Your task to perform on an android device: Show me recent news Image 0: 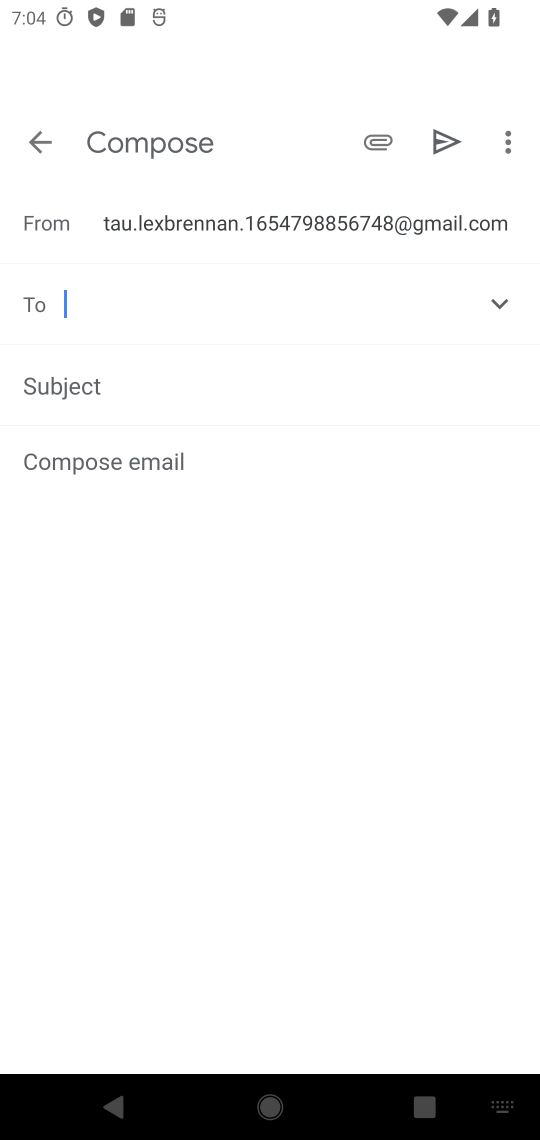
Step 0: press back button
Your task to perform on an android device: Show me recent news Image 1: 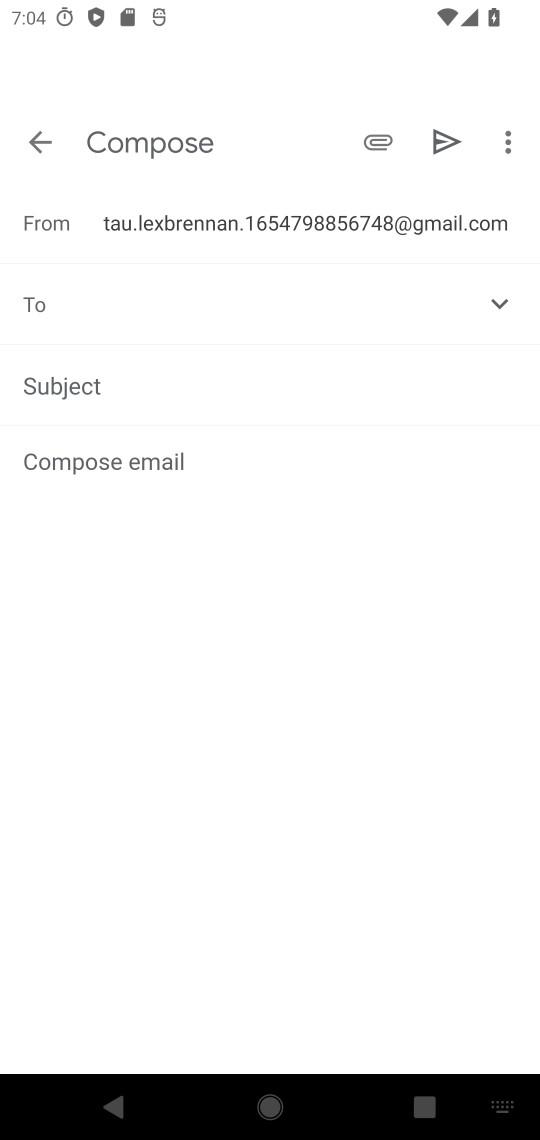
Step 1: press back button
Your task to perform on an android device: Show me recent news Image 2: 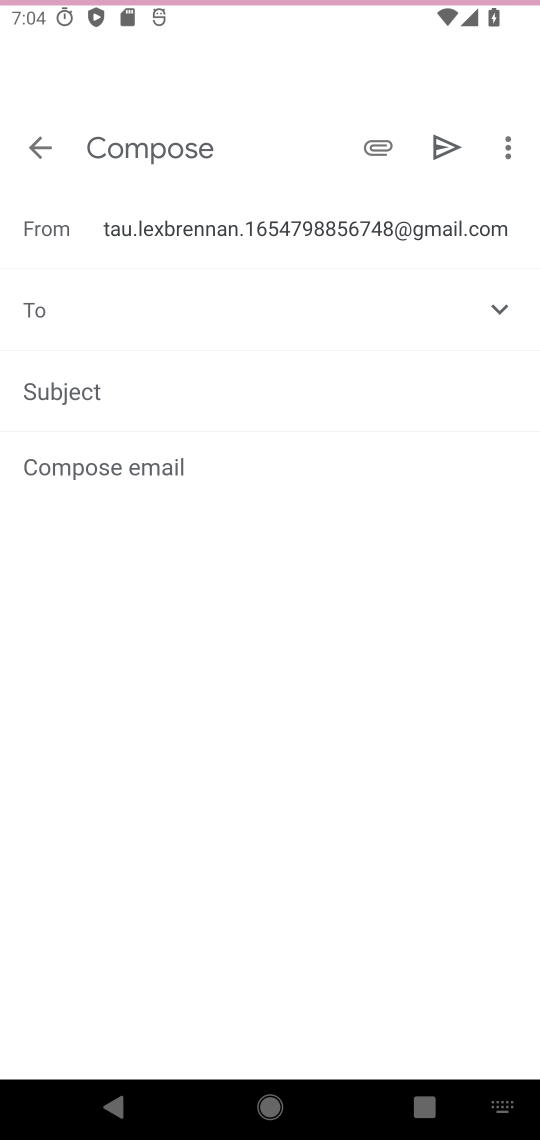
Step 2: press back button
Your task to perform on an android device: Show me recent news Image 3: 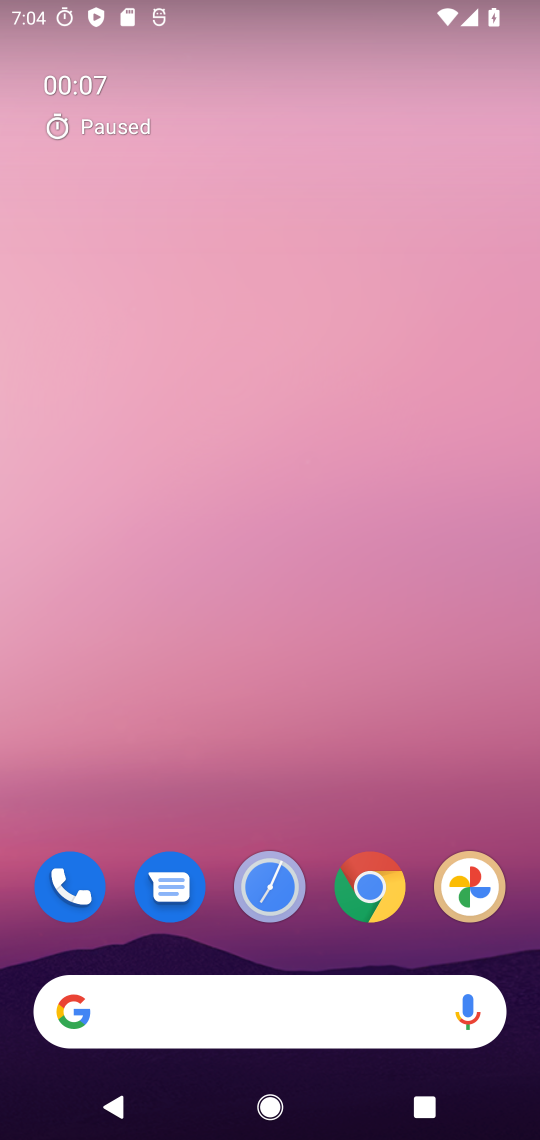
Step 3: drag from (288, 543) to (273, 244)
Your task to perform on an android device: Show me recent news Image 4: 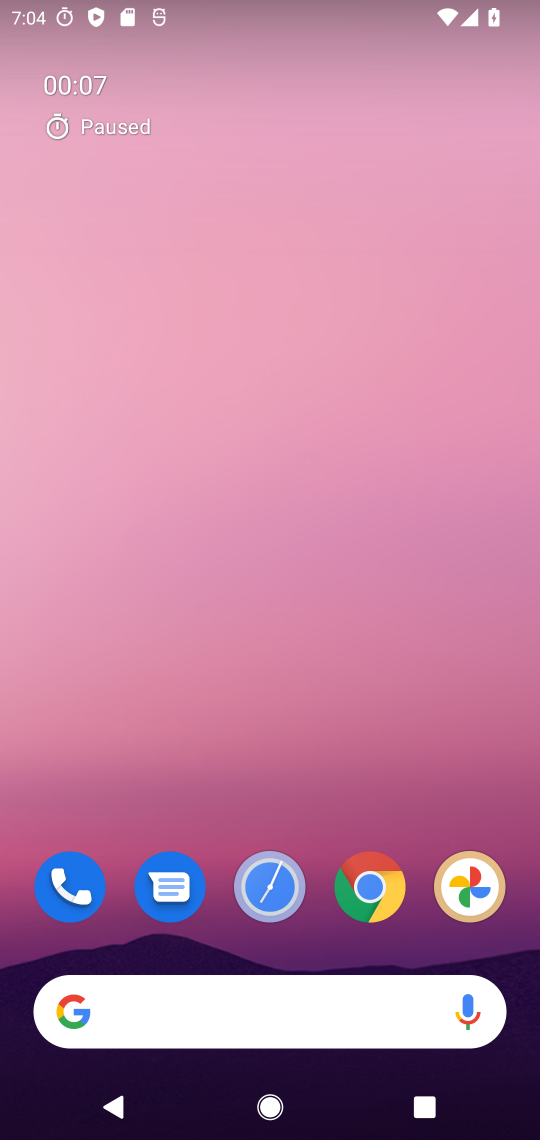
Step 4: drag from (285, 721) to (290, 343)
Your task to perform on an android device: Show me recent news Image 5: 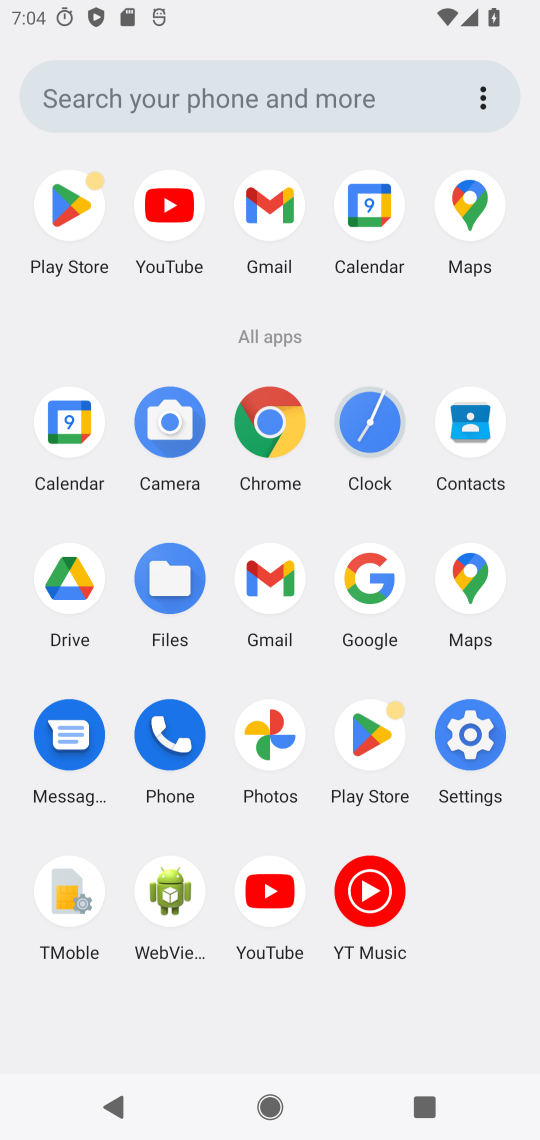
Step 5: drag from (214, 525) to (201, 394)
Your task to perform on an android device: Show me recent news Image 6: 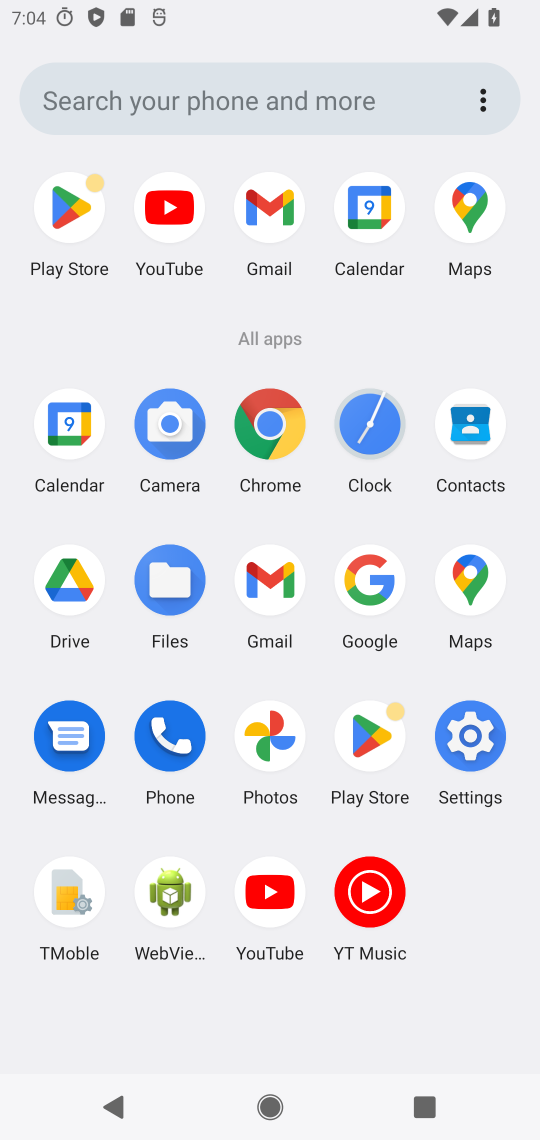
Step 6: click (262, 448)
Your task to perform on an android device: Show me recent news Image 7: 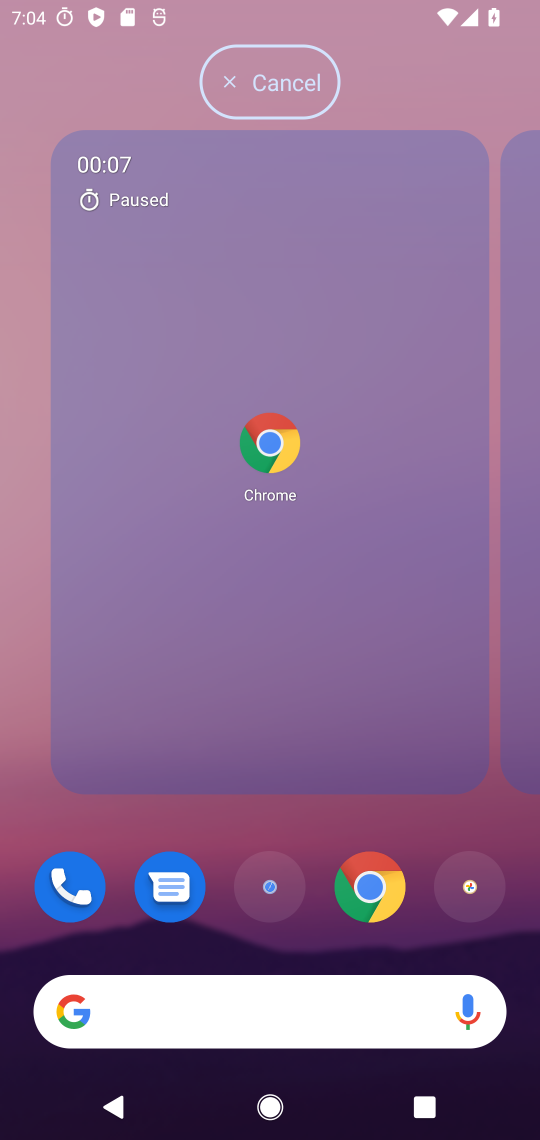
Step 7: drag from (291, 455) to (274, 202)
Your task to perform on an android device: Show me recent news Image 8: 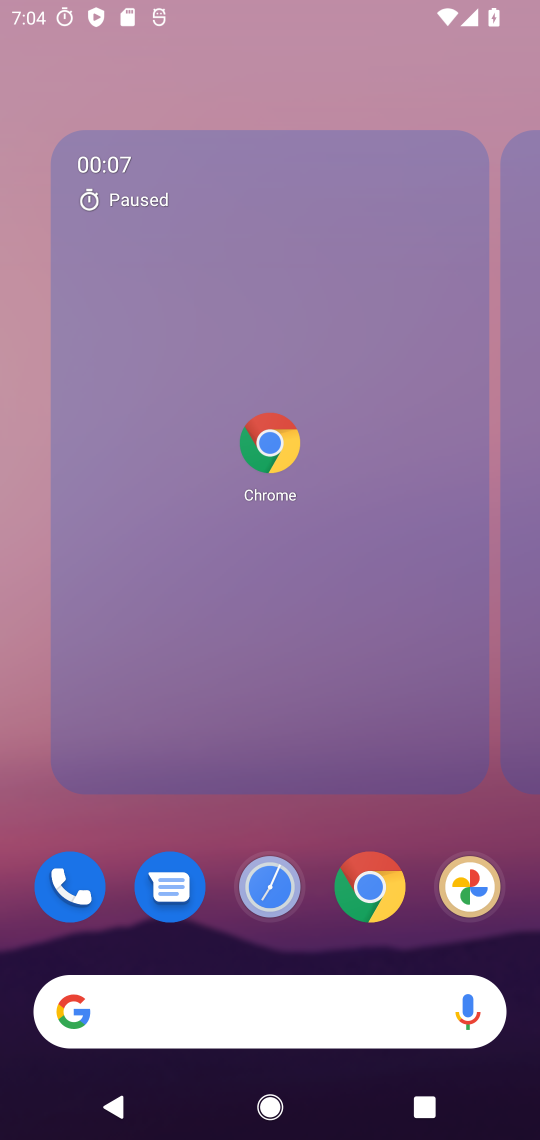
Step 8: drag from (311, 918) to (267, 264)
Your task to perform on an android device: Show me recent news Image 9: 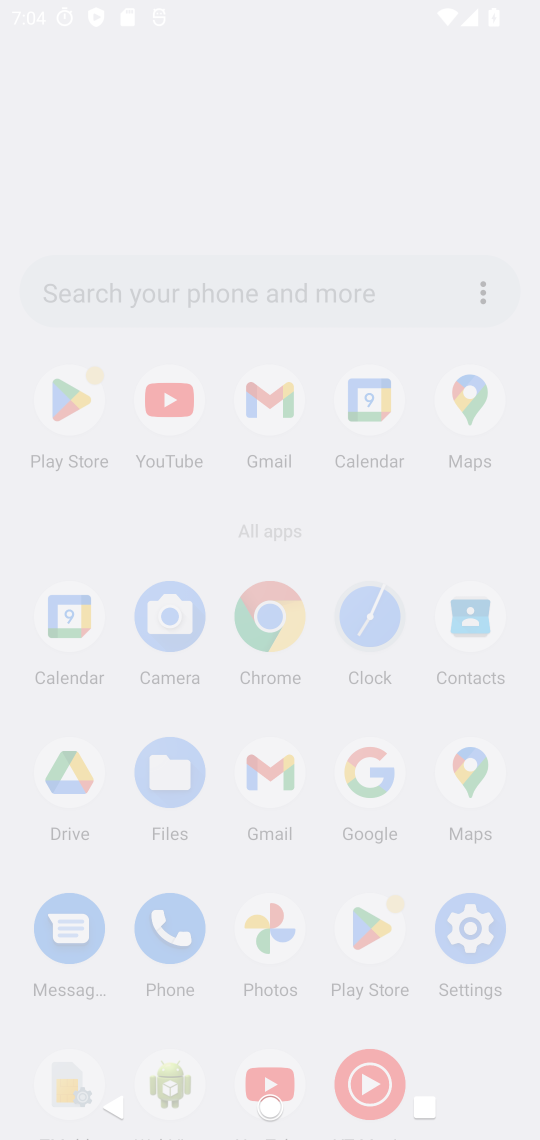
Step 9: drag from (315, 649) to (285, 58)
Your task to perform on an android device: Show me recent news Image 10: 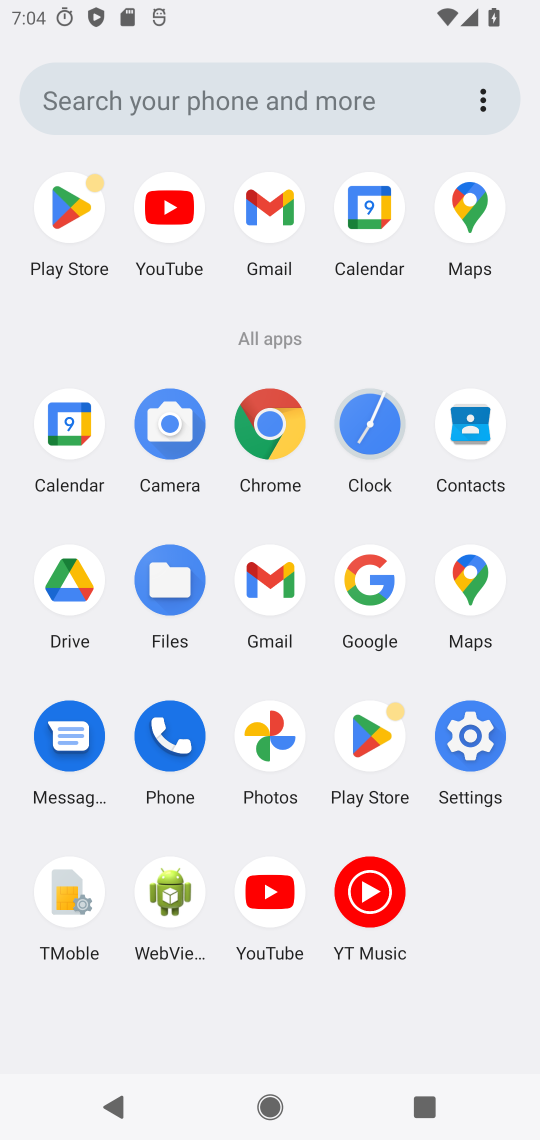
Step 10: drag from (297, 905) to (297, 225)
Your task to perform on an android device: Show me recent news Image 11: 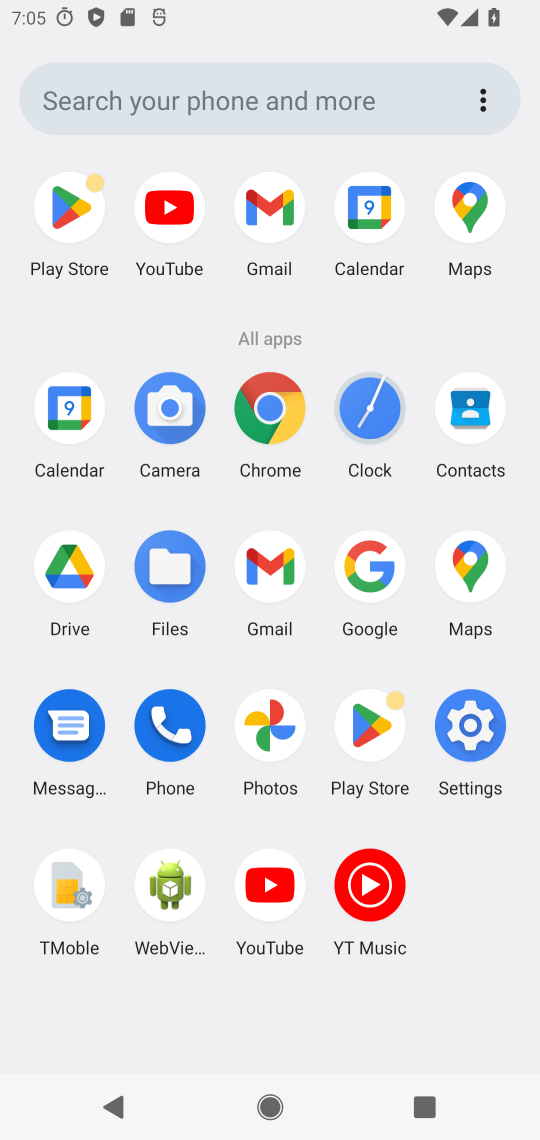
Step 11: click (256, 420)
Your task to perform on an android device: Show me recent news Image 12: 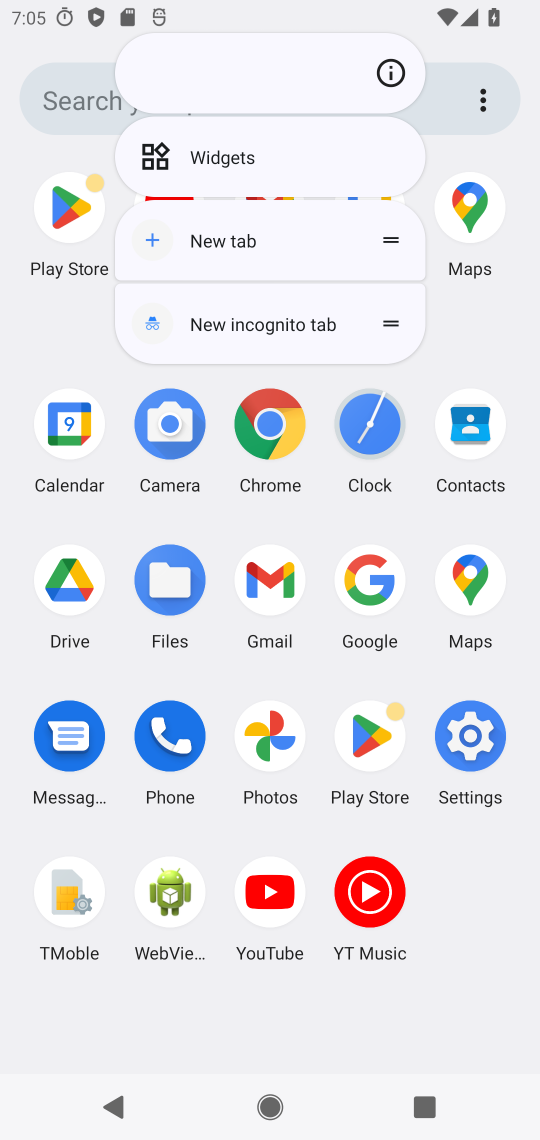
Step 12: click (269, 412)
Your task to perform on an android device: Show me recent news Image 13: 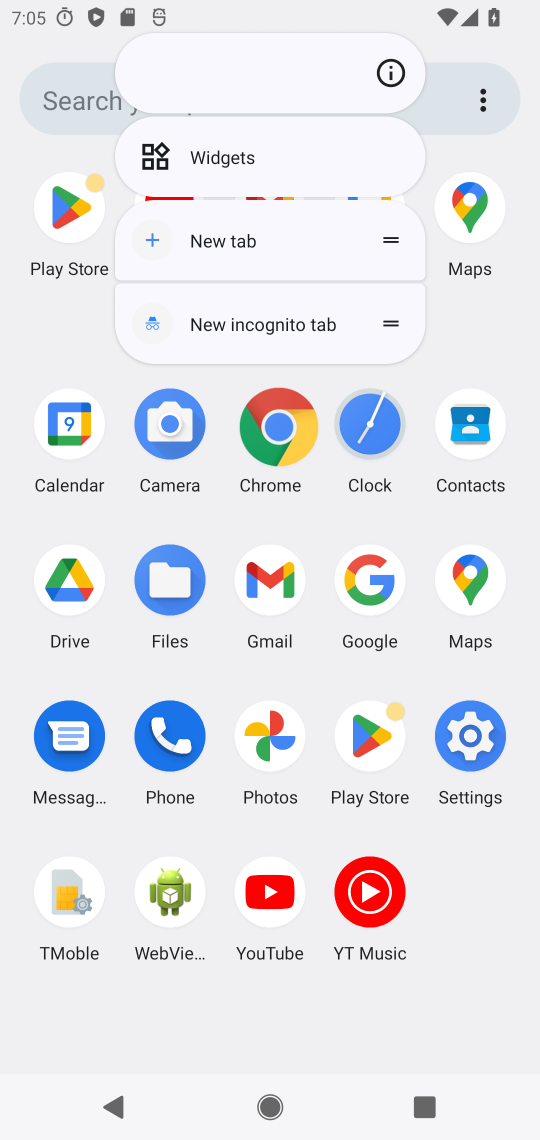
Step 13: click (277, 419)
Your task to perform on an android device: Show me recent news Image 14: 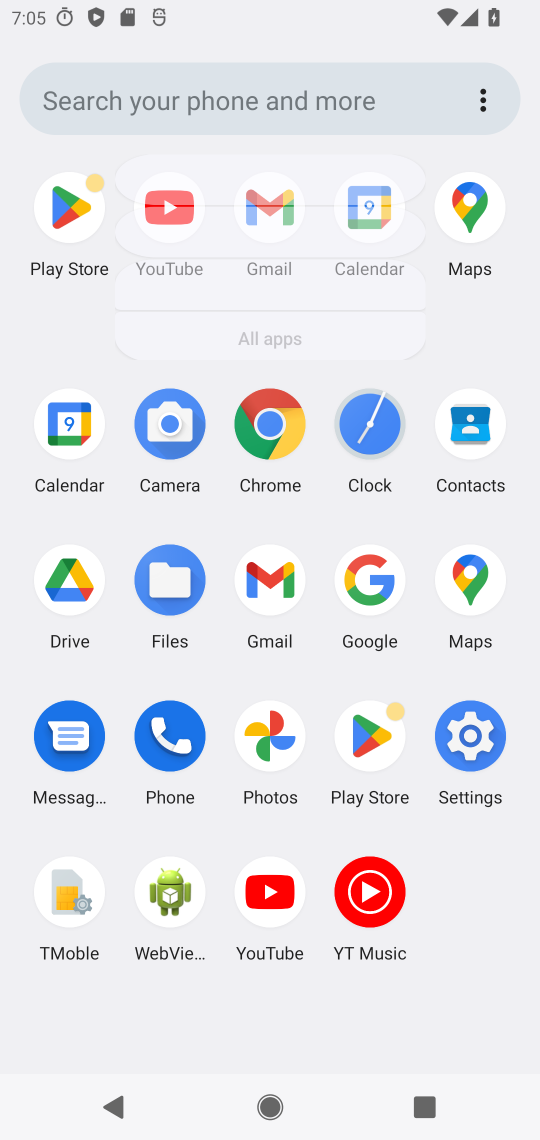
Step 14: click (296, 461)
Your task to perform on an android device: Show me recent news Image 15: 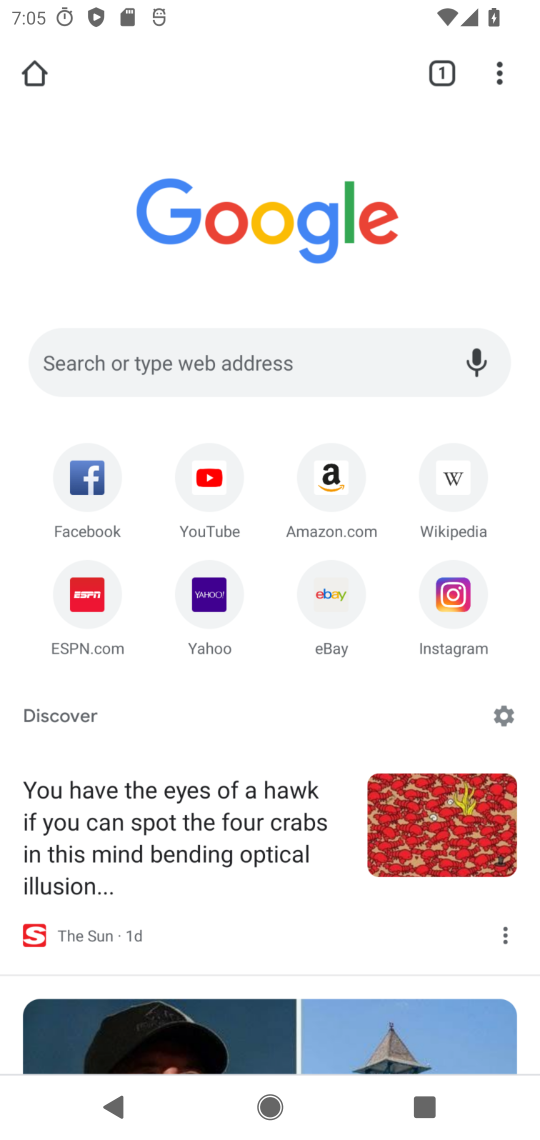
Step 15: click (297, 465)
Your task to perform on an android device: Show me recent news Image 16: 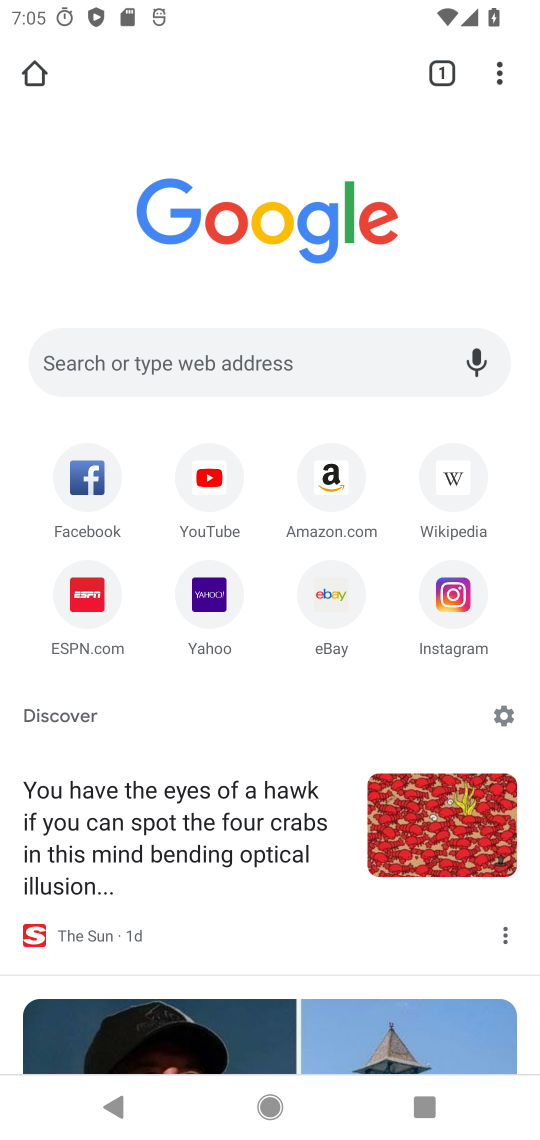
Step 16: task complete